Your task to perform on an android device: What is the news today? Image 0: 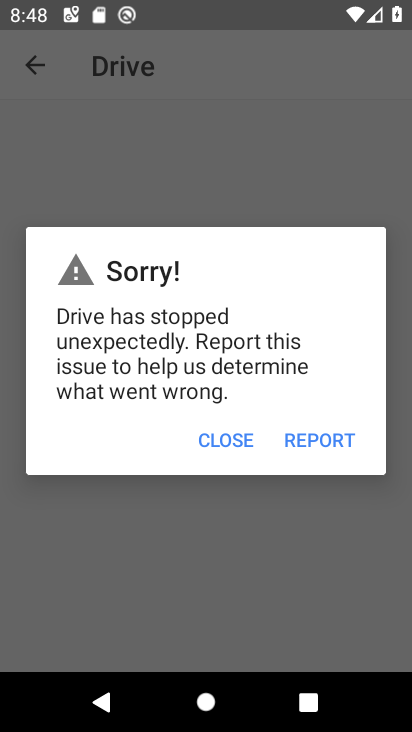
Step 0: press home button
Your task to perform on an android device: What is the news today? Image 1: 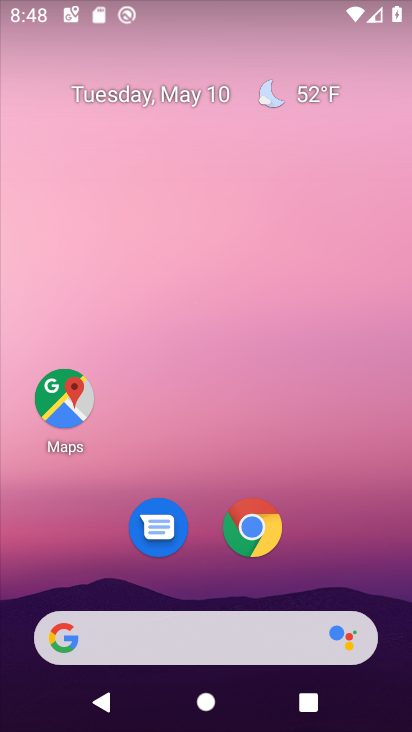
Step 1: click (249, 527)
Your task to perform on an android device: What is the news today? Image 2: 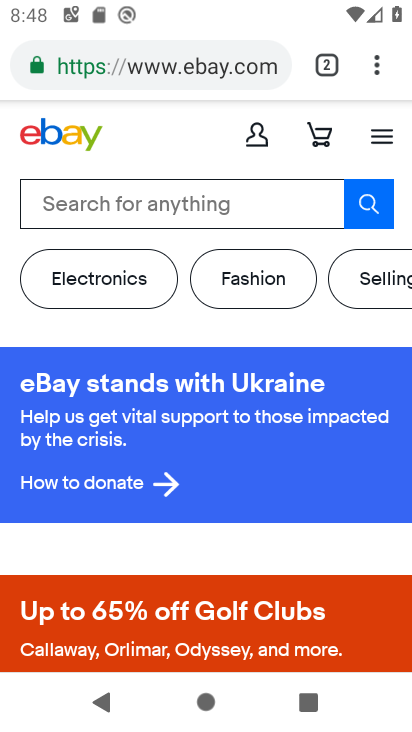
Step 2: click (329, 61)
Your task to perform on an android device: What is the news today? Image 3: 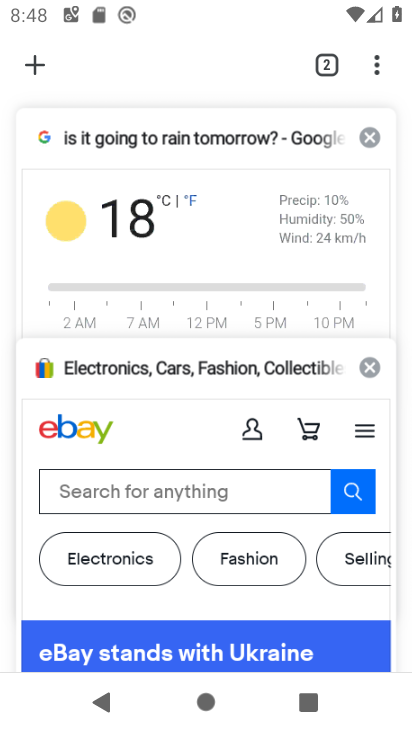
Step 3: click (35, 57)
Your task to perform on an android device: What is the news today? Image 4: 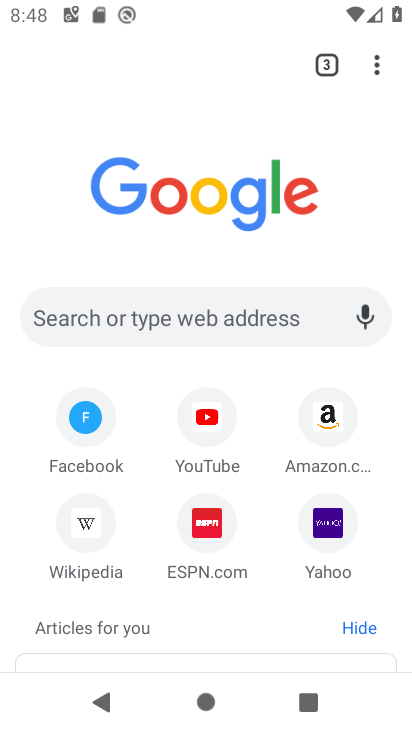
Step 4: click (88, 312)
Your task to perform on an android device: What is the news today? Image 5: 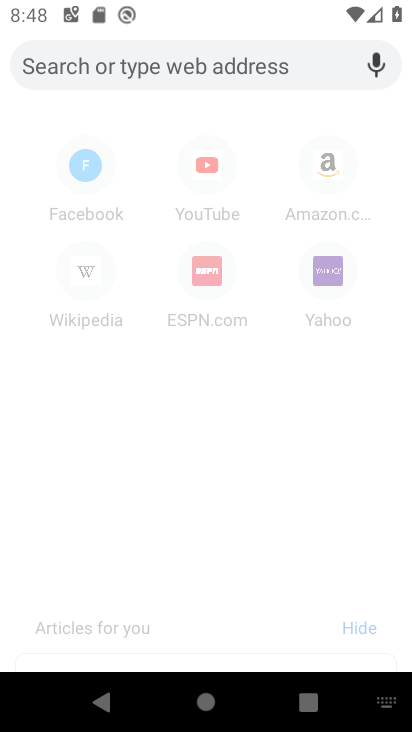
Step 5: type "news today"
Your task to perform on an android device: What is the news today? Image 6: 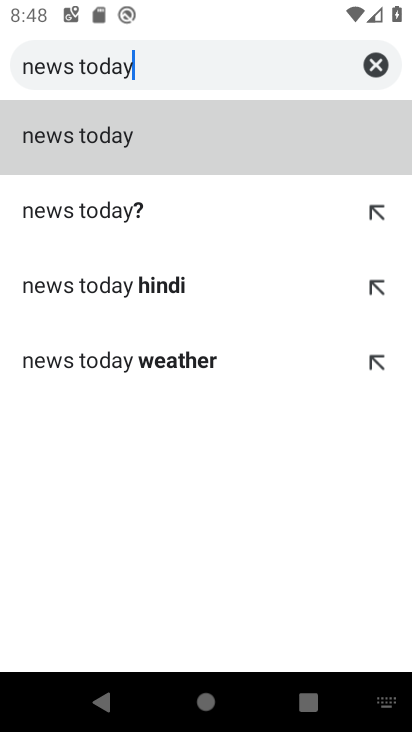
Step 6: click (105, 136)
Your task to perform on an android device: What is the news today? Image 7: 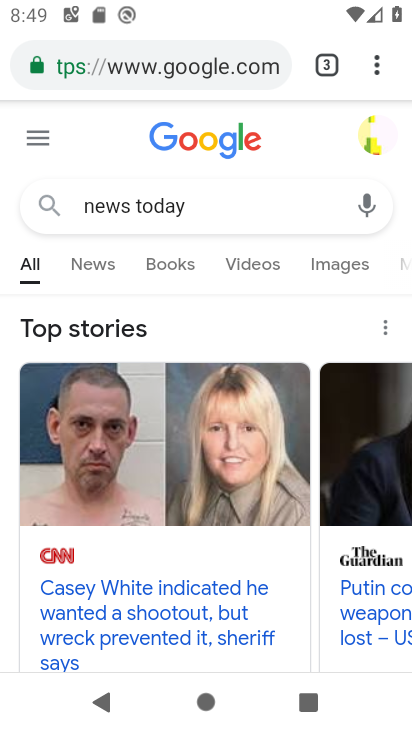
Step 7: click (94, 265)
Your task to perform on an android device: What is the news today? Image 8: 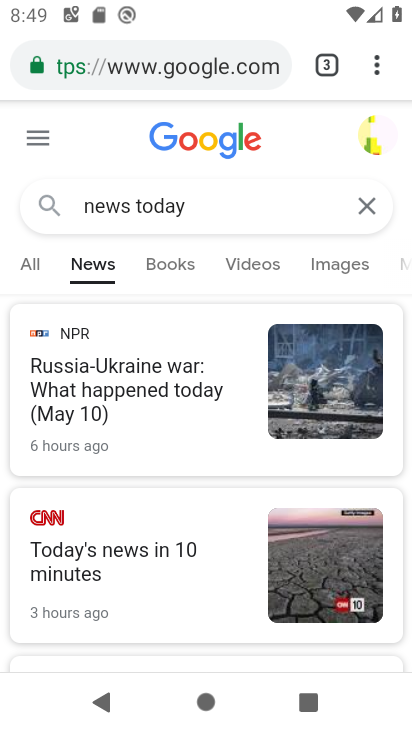
Step 8: task complete